Your task to perform on an android device: change keyboard looks Image 0: 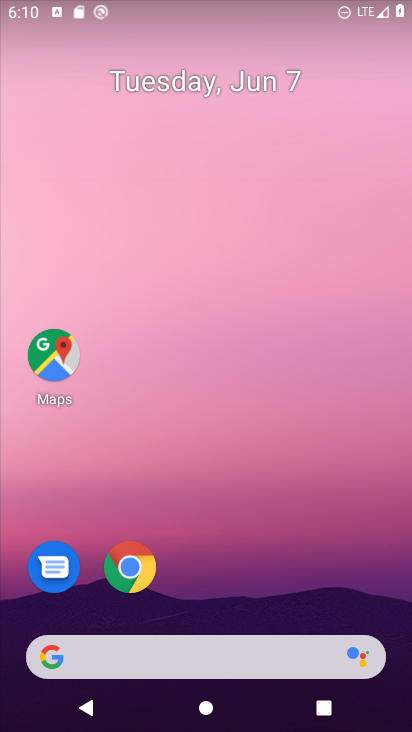
Step 0: drag from (302, 653) to (315, 91)
Your task to perform on an android device: change keyboard looks Image 1: 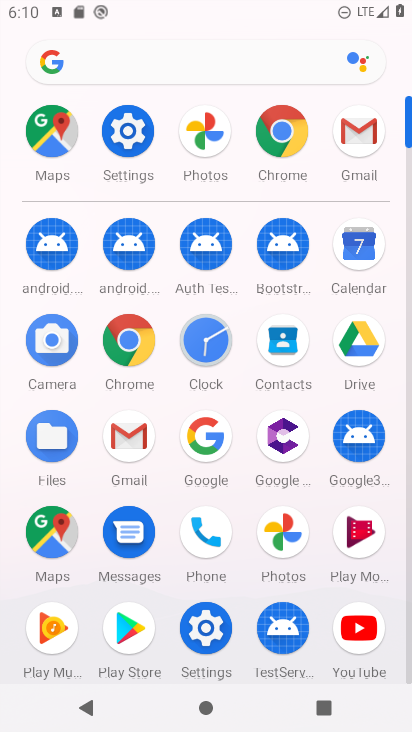
Step 1: click (142, 152)
Your task to perform on an android device: change keyboard looks Image 2: 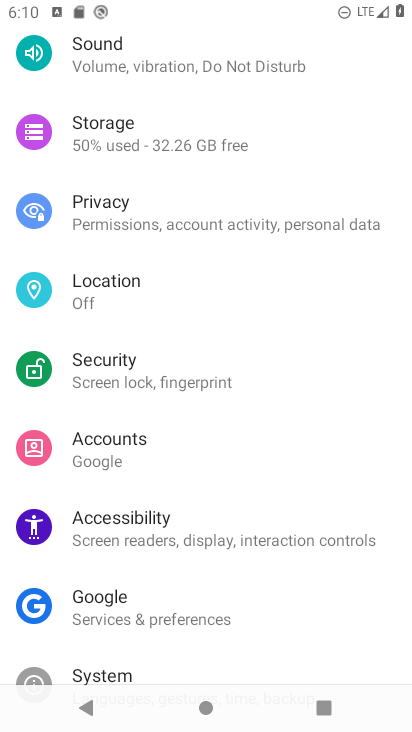
Step 2: drag from (229, 345) to (237, 142)
Your task to perform on an android device: change keyboard looks Image 3: 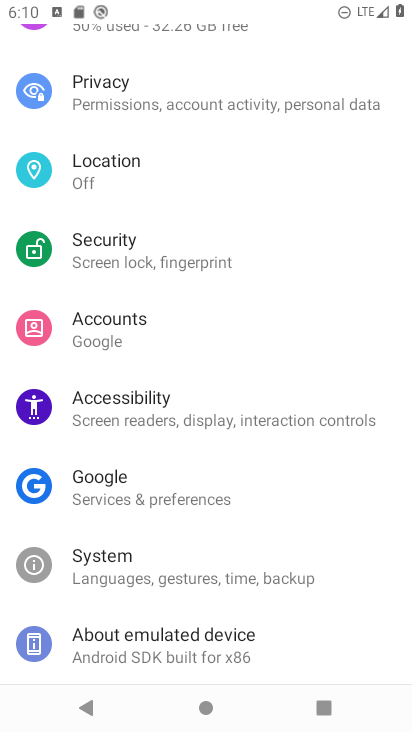
Step 3: drag from (290, 615) to (321, 158)
Your task to perform on an android device: change keyboard looks Image 4: 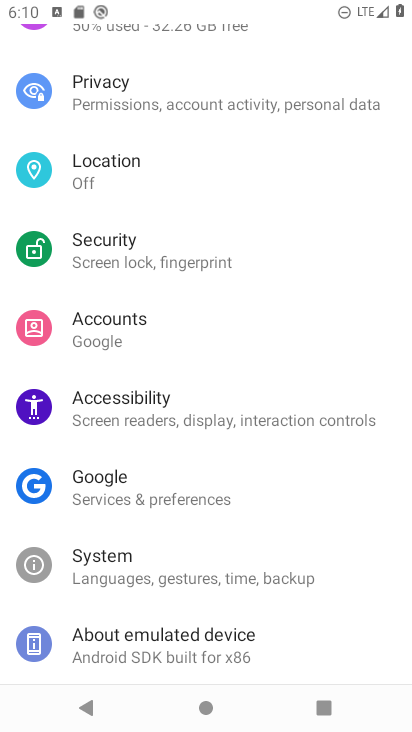
Step 4: click (210, 579)
Your task to perform on an android device: change keyboard looks Image 5: 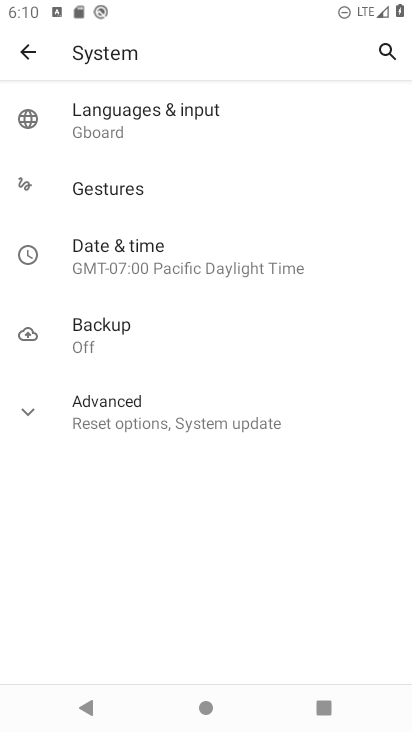
Step 5: click (152, 108)
Your task to perform on an android device: change keyboard looks Image 6: 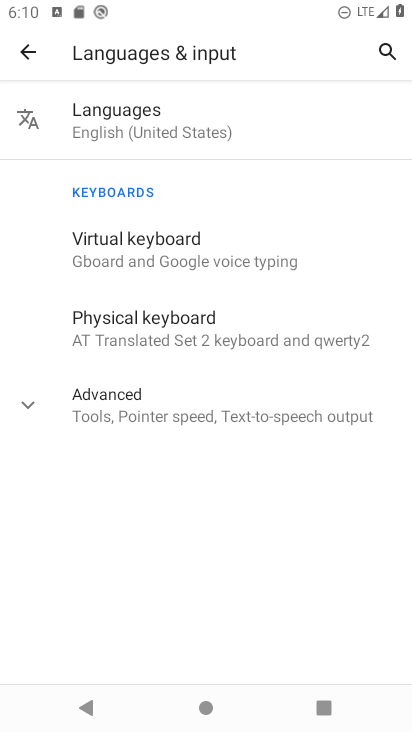
Step 6: click (187, 258)
Your task to perform on an android device: change keyboard looks Image 7: 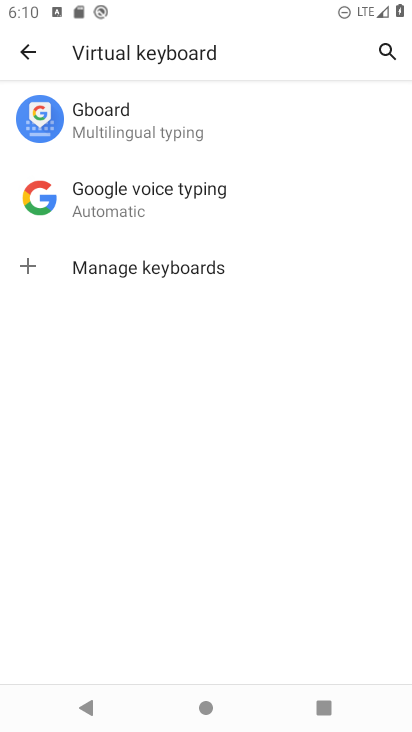
Step 7: click (235, 126)
Your task to perform on an android device: change keyboard looks Image 8: 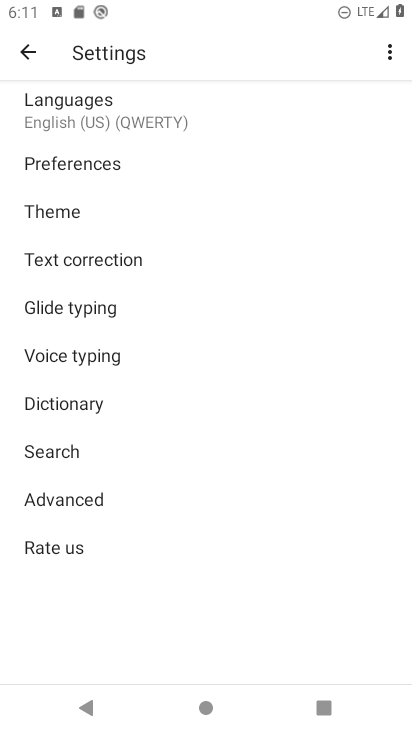
Step 8: click (95, 213)
Your task to perform on an android device: change keyboard looks Image 9: 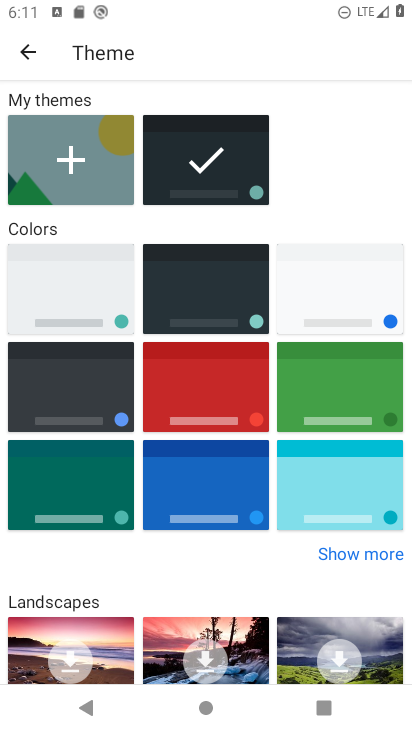
Step 9: click (321, 420)
Your task to perform on an android device: change keyboard looks Image 10: 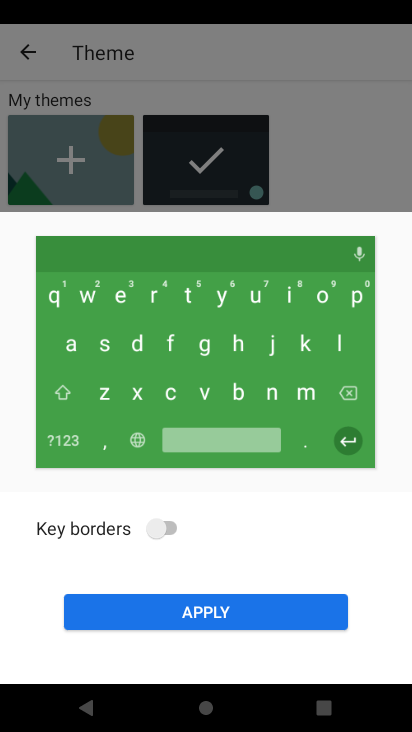
Step 10: click (244, 606)
Your task to perform on an android device: change keyboard looks Image 11: 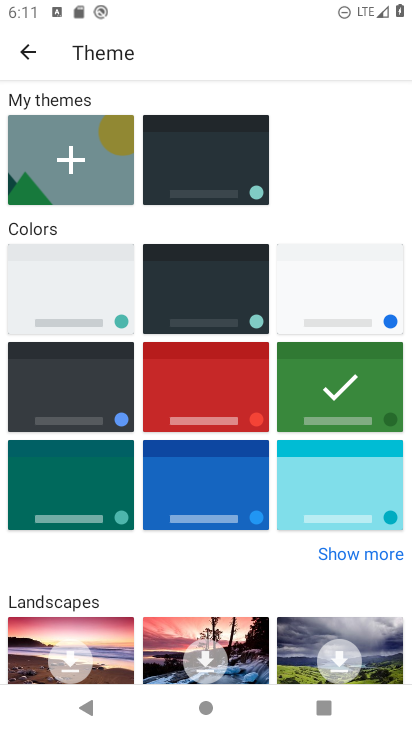
Step 11: task complete